Your task to perform on an android device: toggle priority inbox in the gmail app Image 0: 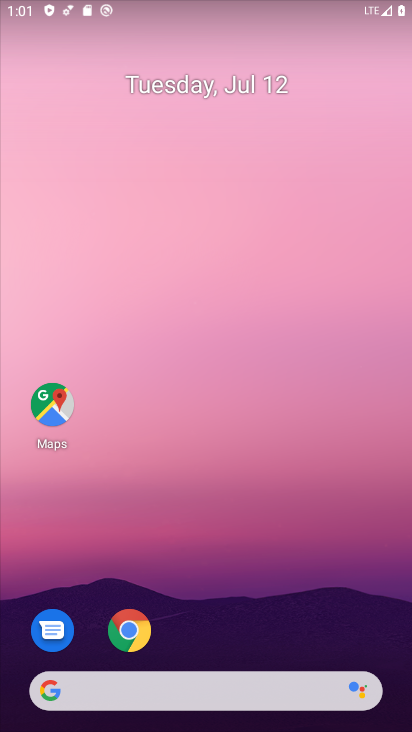
Step 0: drag from (373, 622) to (310, 135)
Your task to perform on an android device: toggle priority inbox in the gmail app Image 1: 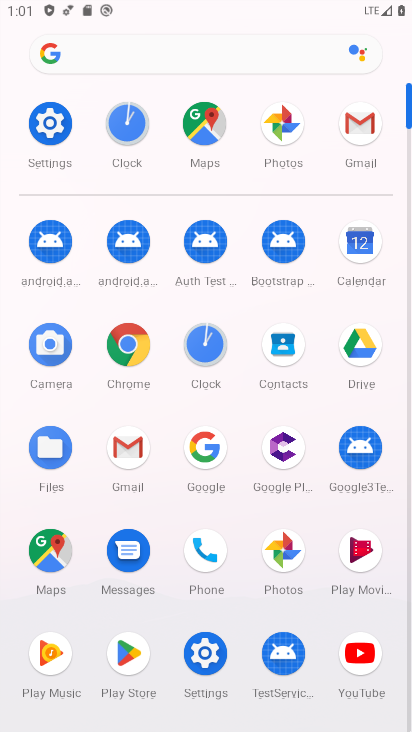
Step 1: click (130, 453)
Your task to perform on an android device: toggle priority inbox in the gmail app Image 2: 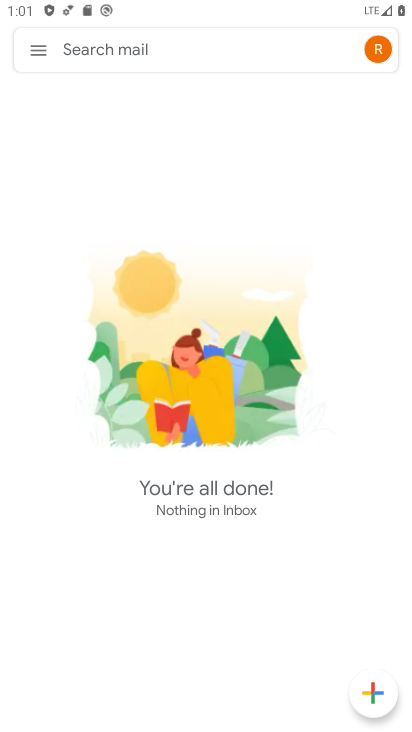
Step 2: click (36, 48)
Your task to perform on an android device: toggle priority inbox in the gmail app Image 3: 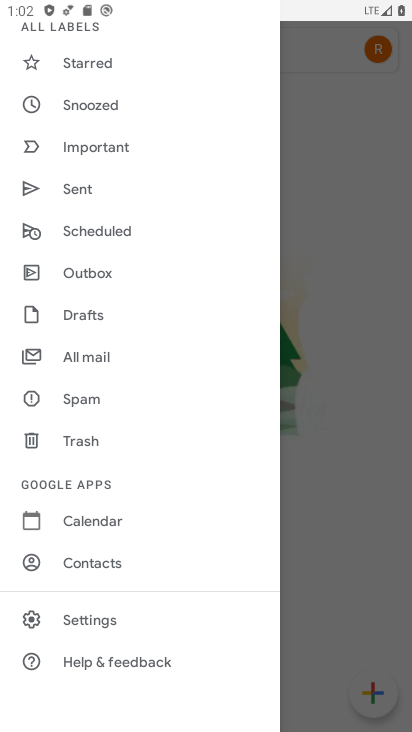
Step 3: click (97, 614)
Your task to perform on an android device: toggle priority inbox in the gmail app Image 4: 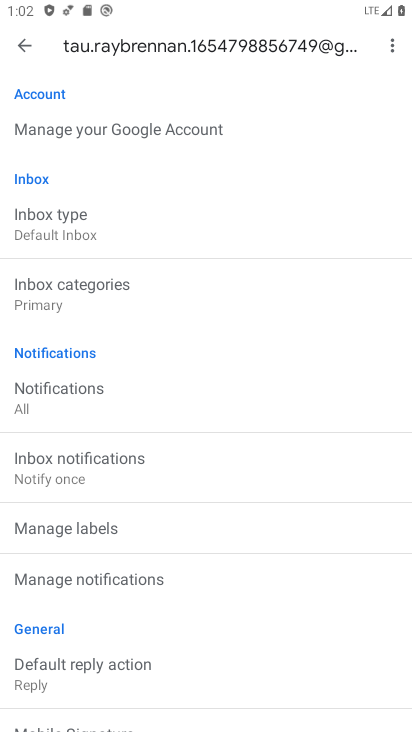
Step 4: click (50, 232)
Your task to perform on an android device: toggle priority inbox in the gmail app Image 5: 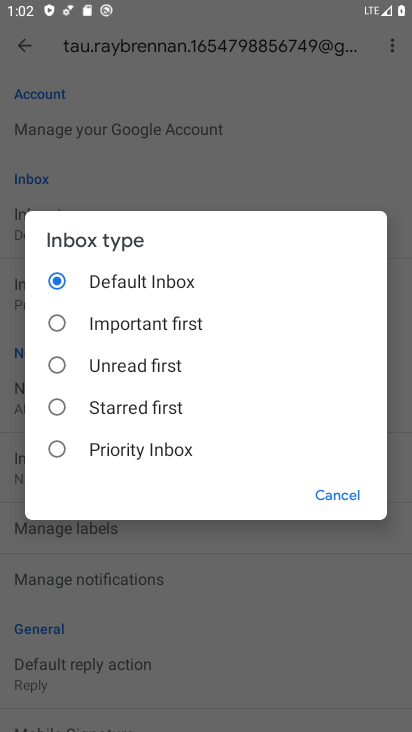
Step 5: click (58, 446)
Your task to perform on an android device: toggle priority inbox in the gmail app Image 6: 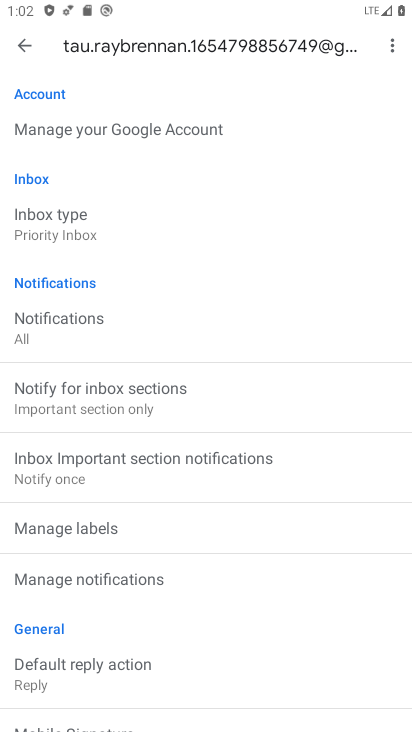
Step 6: task complete